Your task to perform on an android device: Open Google Image 0: 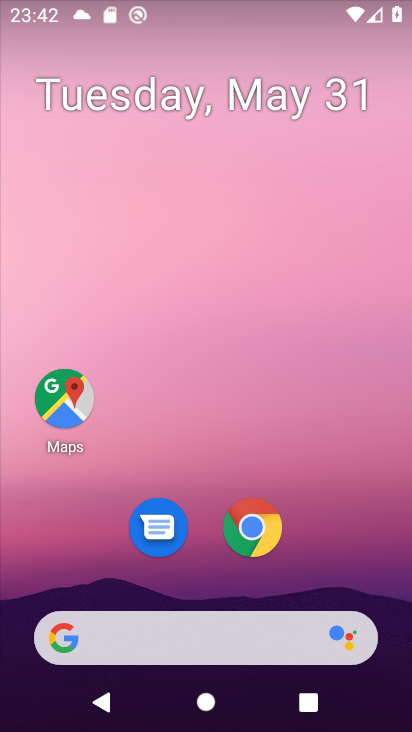
Step 0: drag from (315, 388) to (152, 58)
Your task to perform on an android device: Open Google Image 1: 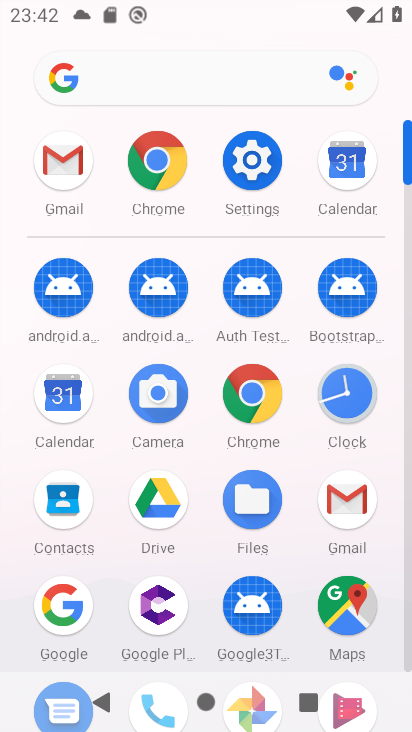
Step 1: click (63, 603)
Your task to perform on an android device: Open Google Image 2: 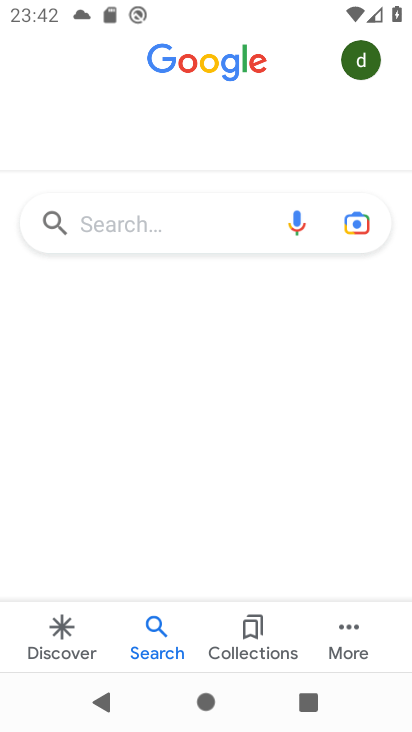
Step 2: task complete